Your task to perform on an android device: delete location history Image 0: 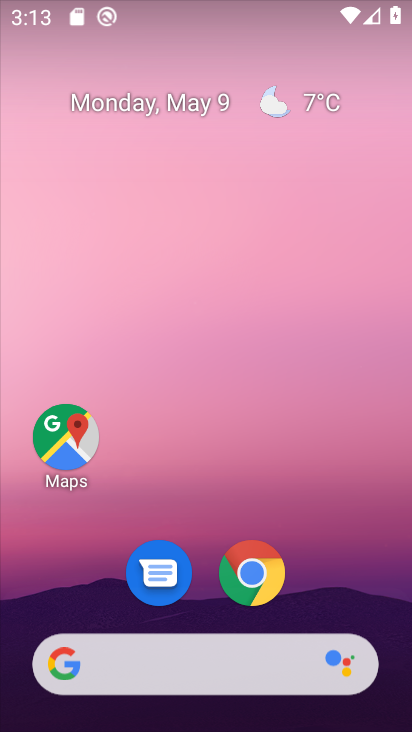
Step 0: click (336, 251)
Your task to perform on an android device: delete location history Image 1: 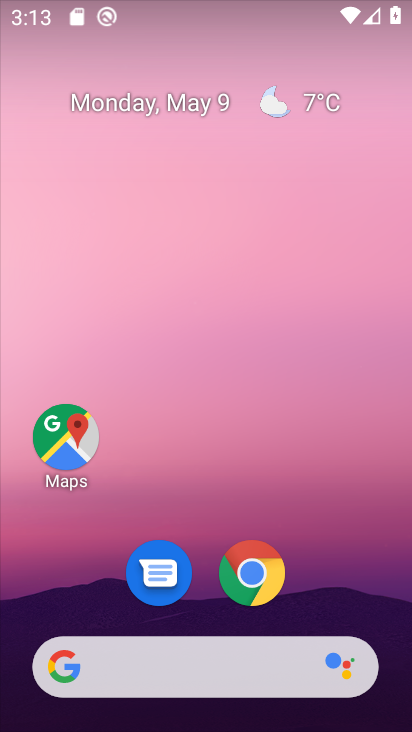
Step 1: drag from (324, 495) to (347, 293)
Your task to perform on an android device: delete location history Image 2: 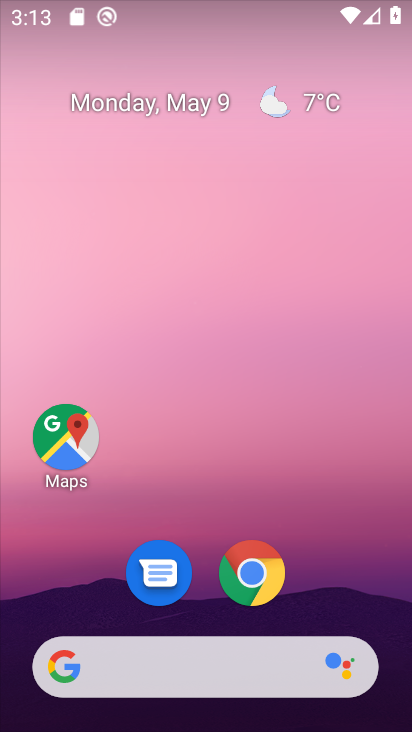
Step 2: drag from (219, 468) to (266, 145)
Your task to perform on an android device: delete location history Image 3: 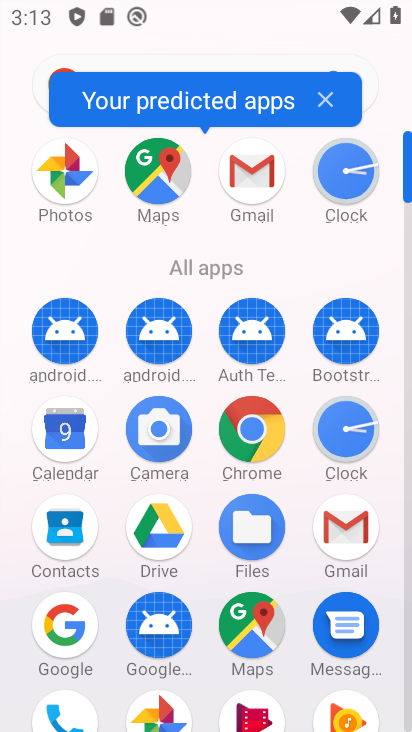
Step 3: click (250, 613)
Your task to perform on an android device: delete location history Image 4: 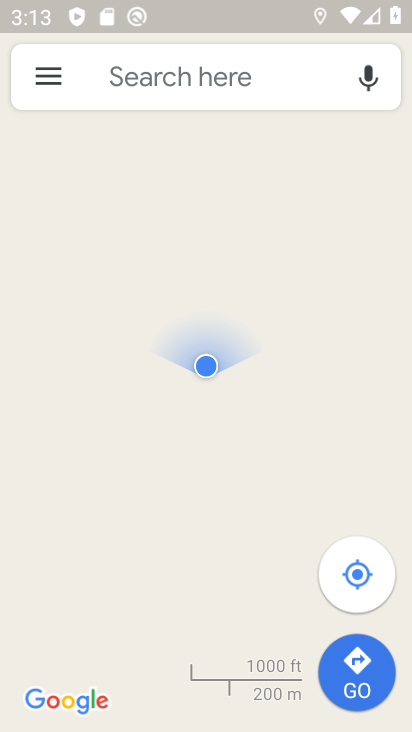
Step 4: click (53, 75)
Your task to perform on an android device: delete location history Image 5: 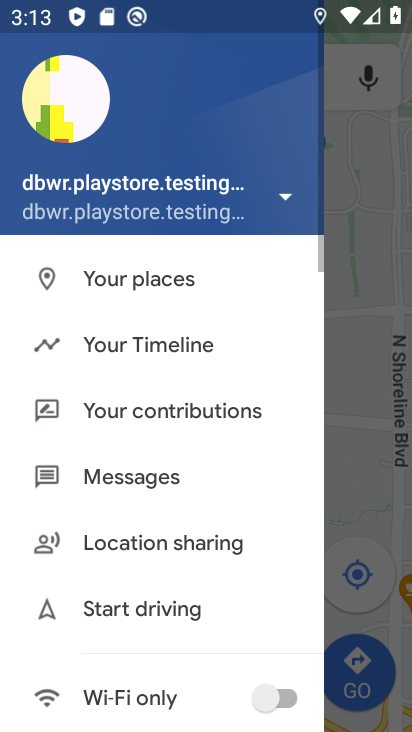
Step 5: click (153, 341)
Your task to perform on an android device: delete location history Image 6: 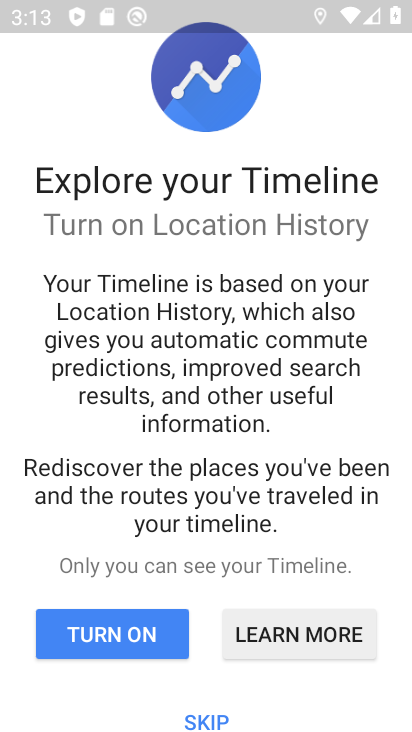
Step 6: click (198, 714)
Your task to perform on an android device: delete location history Image 7: 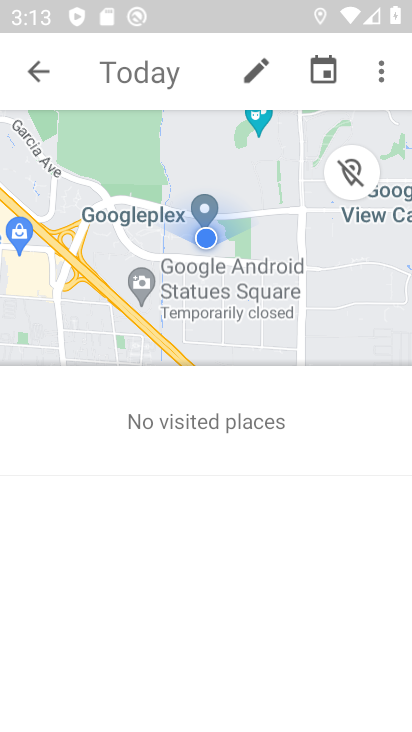
Step 7: click (373, 59)
Your task to perform on an android device: delete location history Image 8: 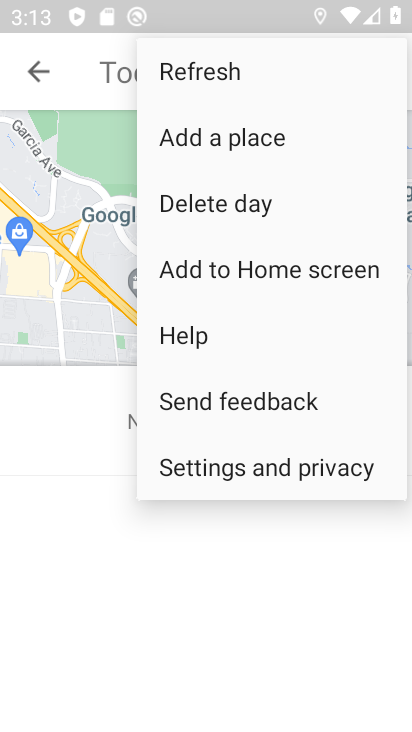
Step 8: click (256, 472)
Your task to perform on an android device: delete location history Image 9: 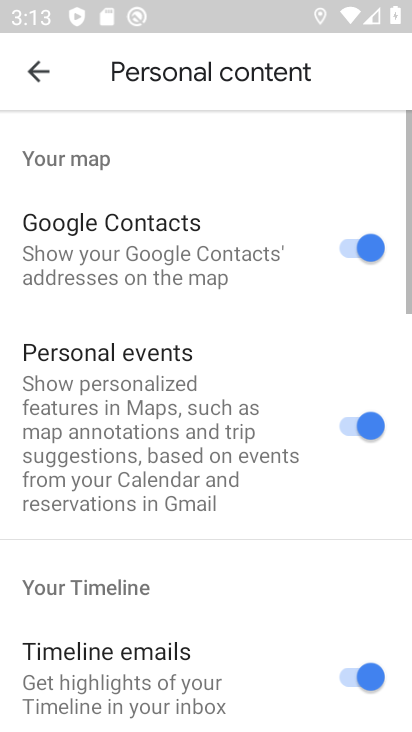
Step 9: drag from (149, 661) to (194, 233)
Your task to perform on an android device: delete location history Image 10: 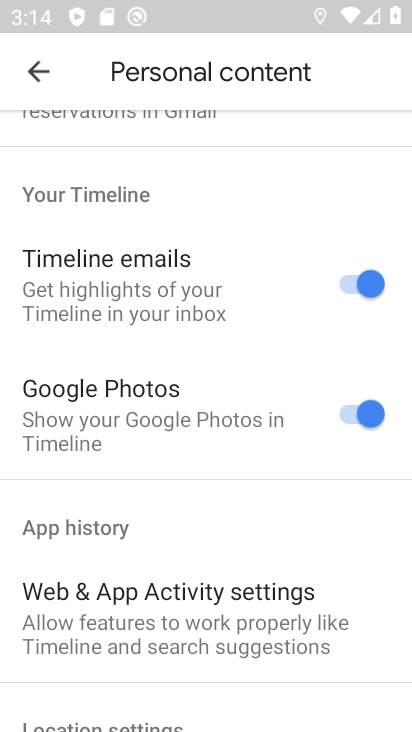
Step 10: drag from (123, 605) to (215, 218)
Your task to perform on an android device: delete location history Image 11: 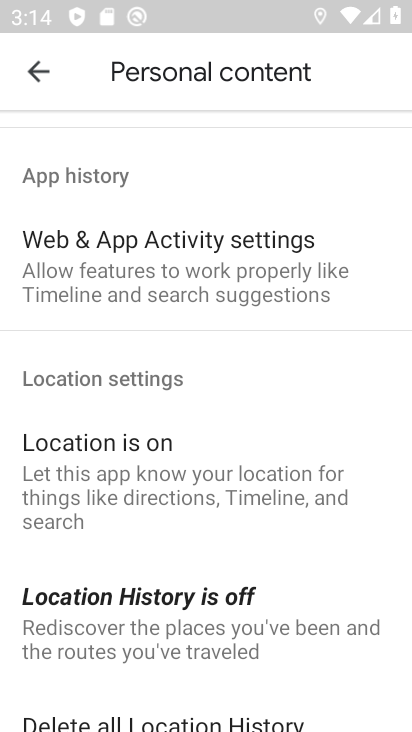
Step 11: drag from (119, 605) to (217, 285)
Your task to perform on an android device: delete location history Image 12: 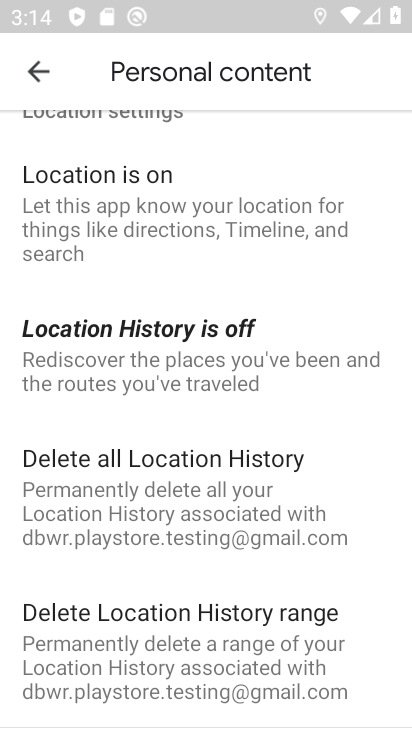
Step 12: click (213, 354)
Your task to perform on an android device: delete location history Image 13: 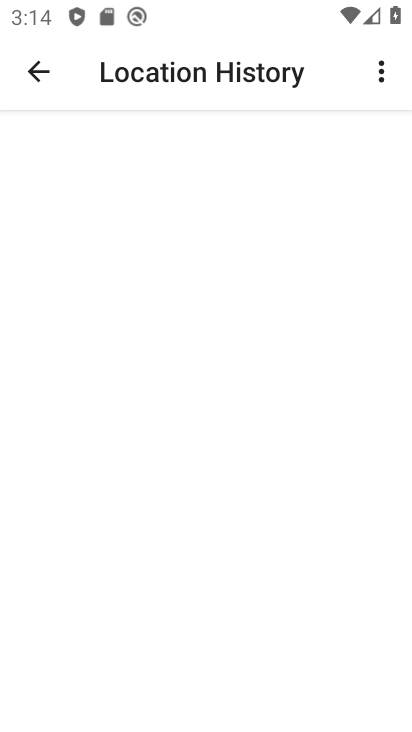
Step 13: press back button
Your task to perform on an android device: delete location history Image 14: 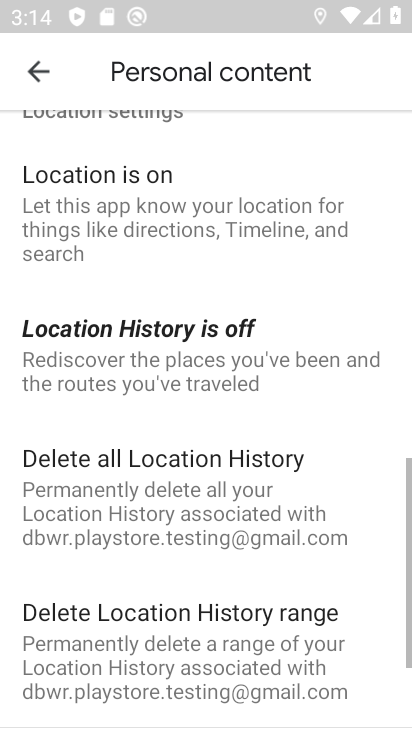
Step 14: click (168, 504)
Your task to perform on an android device: delete location history Image 15: 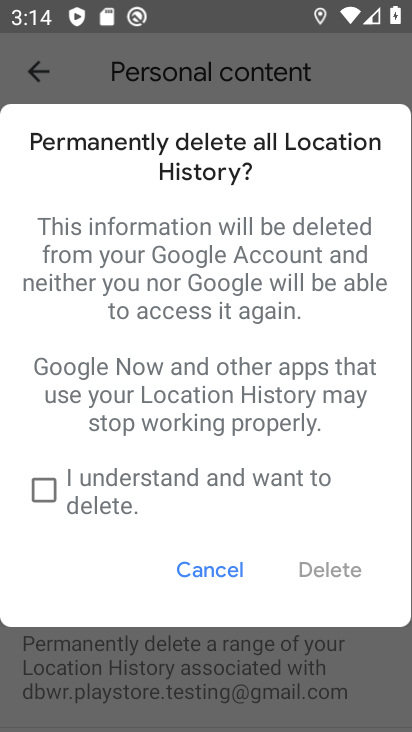
Step 15: click (47, 488)
Your task to perform on an android device: delete location history Image 16: 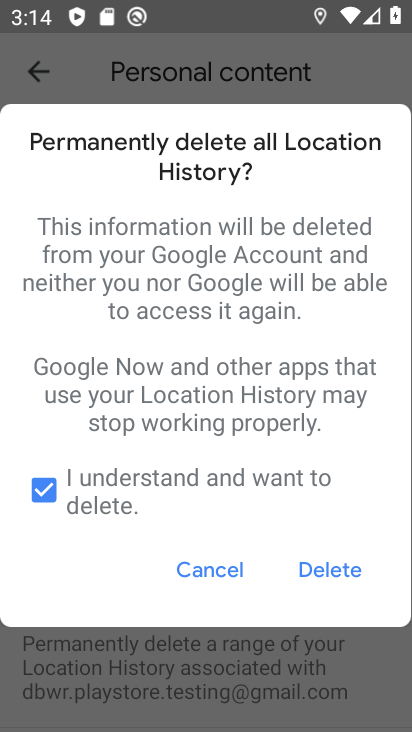
Step 16: click (333, 551)
Your task to perform on an android device: delete location history Image 17: 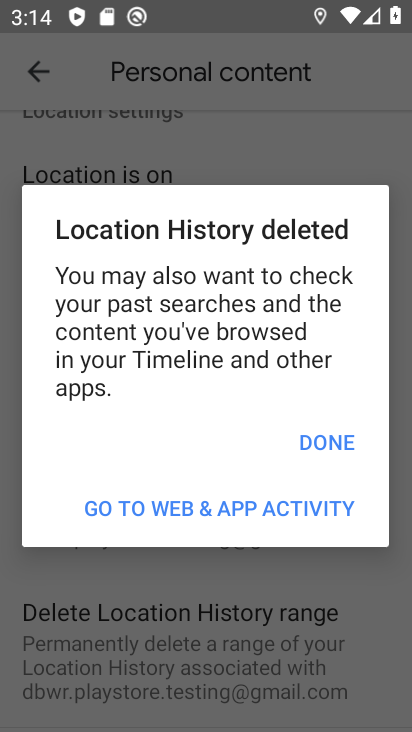
Step 17: click (317, 416)
Your task to perform on an android device: delete location history Image 18: 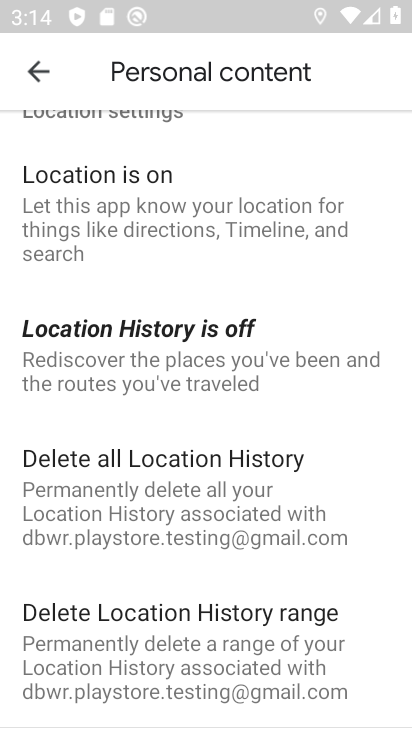
Step 18: task complete